Your task to perform on an android device: install app "Pluto TV - Live TV and Movies" Image 0: 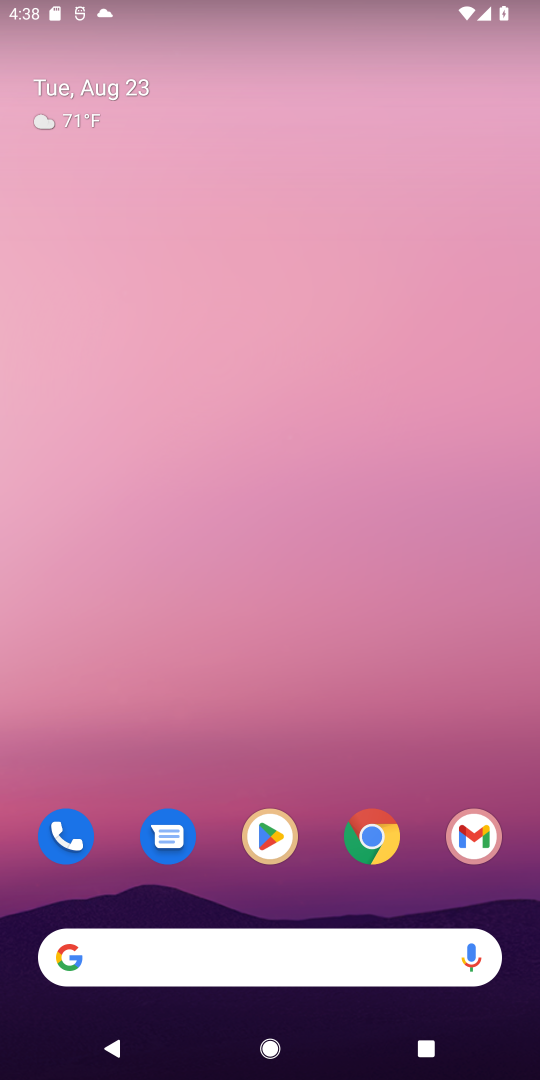
Step 0: click (270, 839)
Your task to perform on an android device: install app "Pluto TV - Live TV and Movies" Image 1: 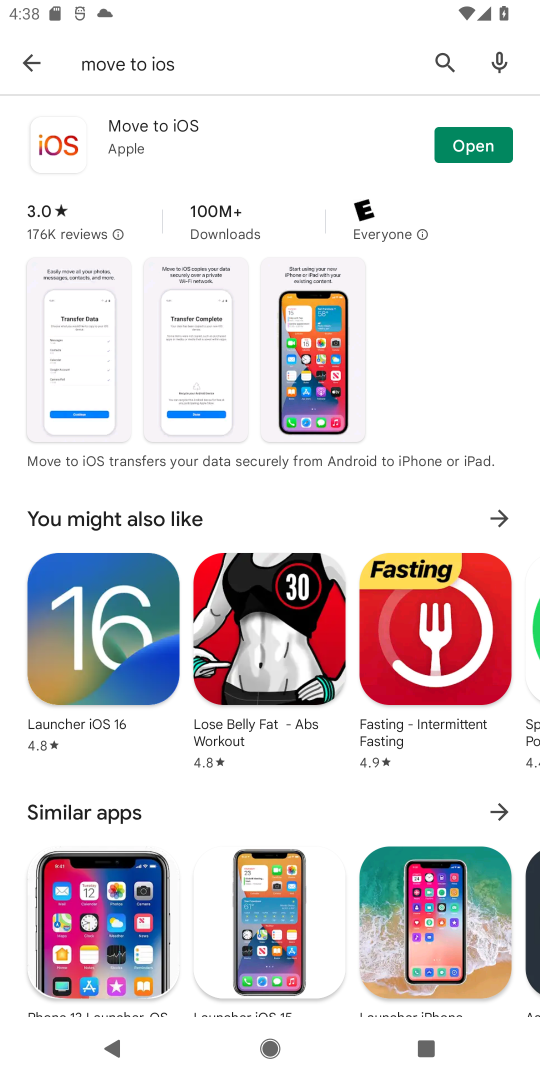
Step 1: click (436, 58)
Your task to perform on an android device: install app "Pluto TV - Live TV and Movies" Image 2: 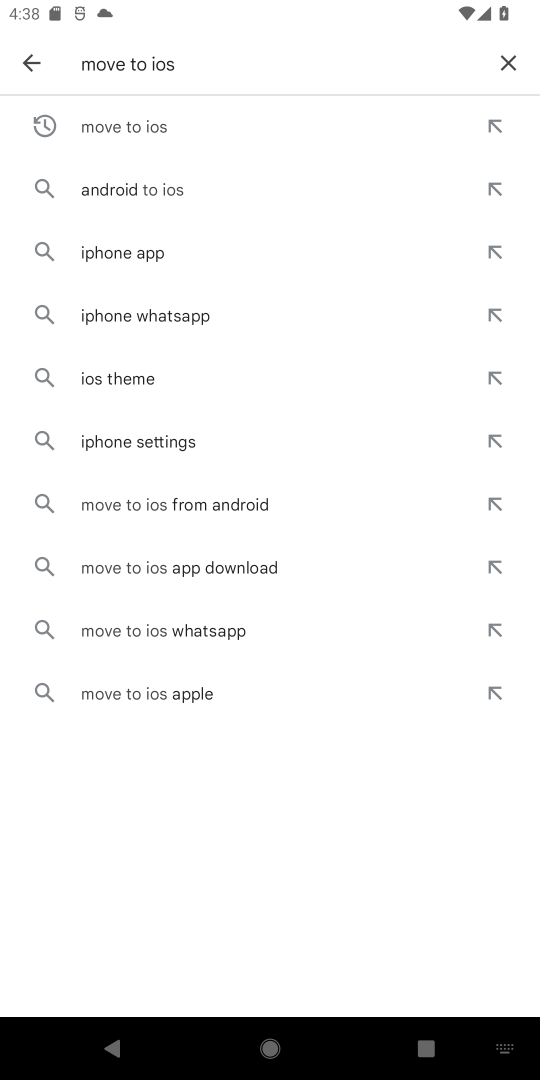
Step 2: click (506, 56)
Your task to perform on an android device: install app "Pluto TV - Live TV and Movies" Image 3: 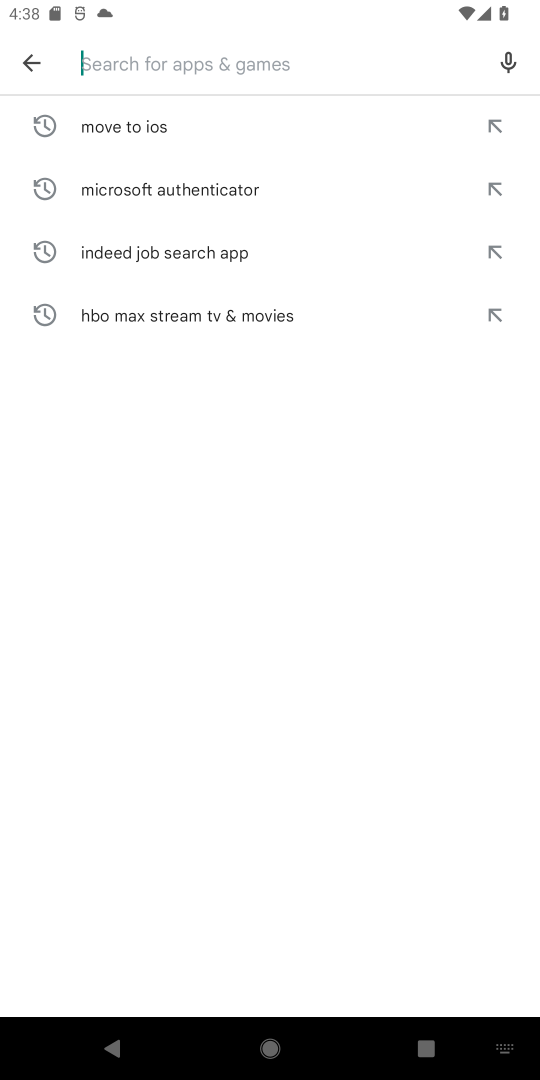
Step 3: type "Pluto TV - Live TV and Movies"
Your task to perform on an android device: install app "Pluto TV - Live TV and Movies" Image 4: 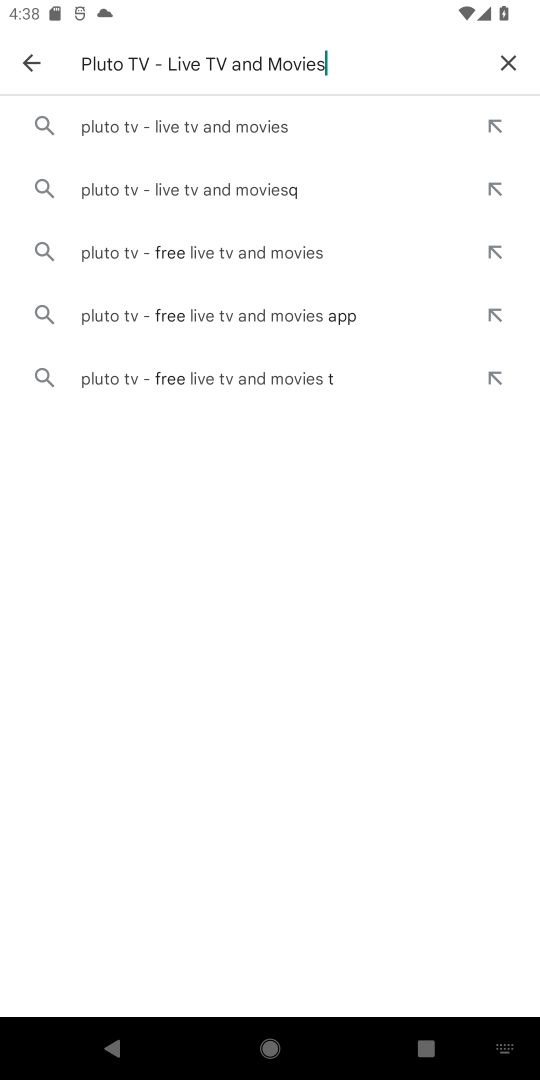
Step 4: click (137, 116)
Your task to perform on an android device: install app "Pluto TV - Live TV and Movies" Image 5: 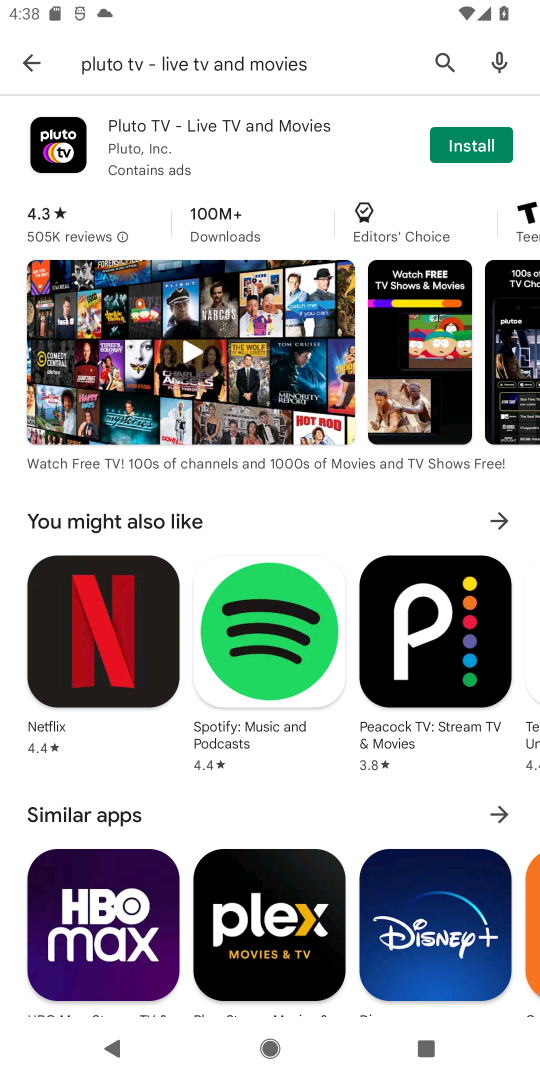
Step 5: click (144, 134)
Your task to perform on an android device: install app "Pluto TV - Live TV and Movies" Image 6: 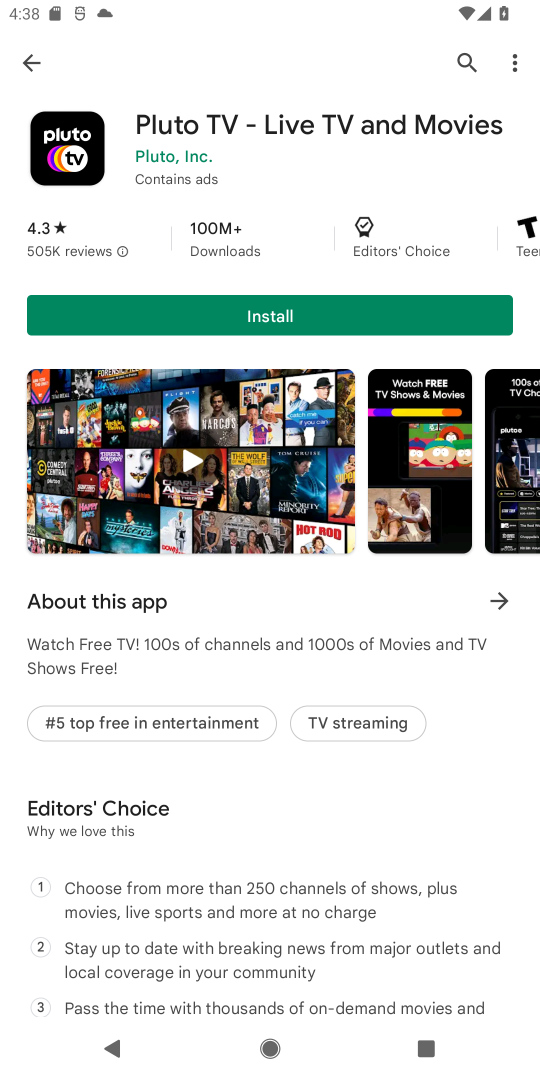
Step 6: click (269, 317)
Your task to perform on an android device: install app "Pluto TV - Live TV and Movies" Image 7: 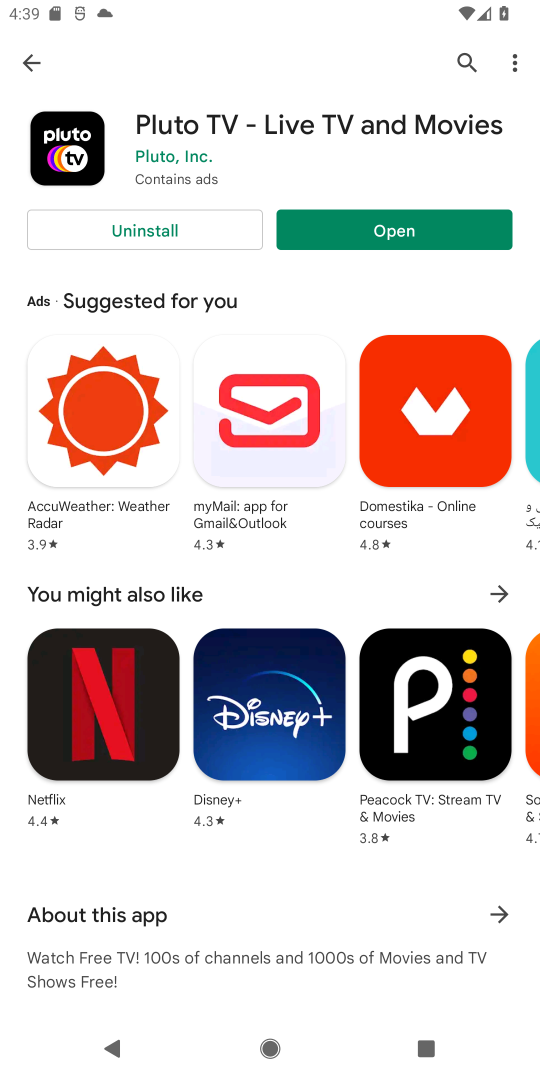
Step 7: task complete